Your task to perform on an android device: Go to Wikipedia Image 0: 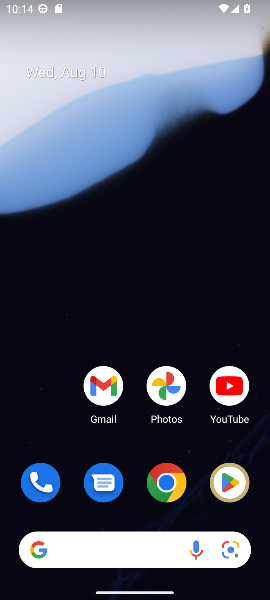
Step 0: click (109, 555)
Your task to perform on an android device: Go to Wikipedia Image 1: 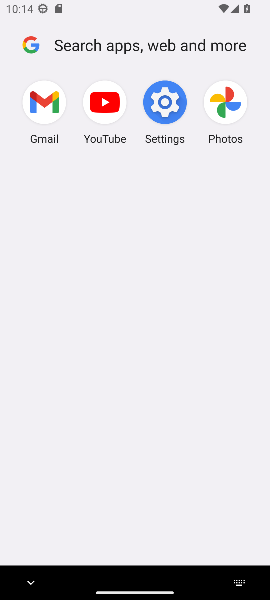
Step 1: type "Go to Wikipedia"
Your task to perform on an android device: Go to Wikipedia Image 2: 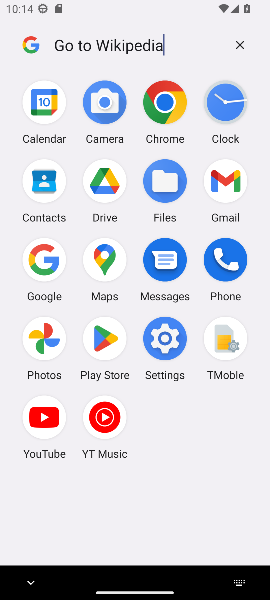
Step 2: type ""
Your task to perform on an android device: Go to Wikipedia Image 3: 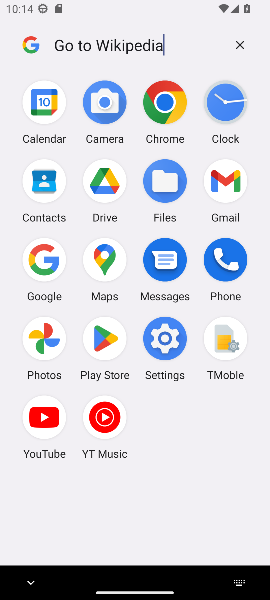
Step 3: press enter
Your task to perform on an android device: Go to Wikipedia Image 4: 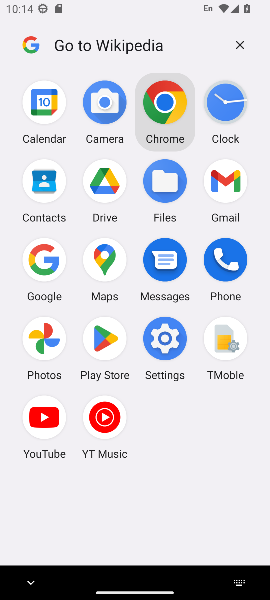
Step 4: press enter
Your task to perform on an android device: Go to Wikipedia Image 5: 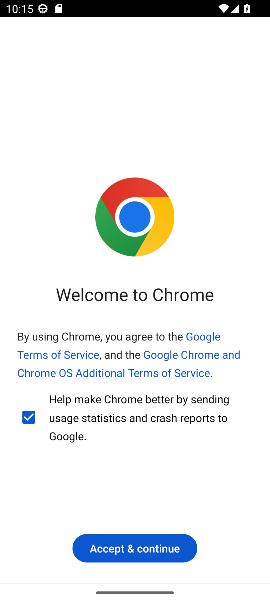
Step 5: click (151, 551)
Your task to perform on an android device: Go to Wikipedia Image 6: 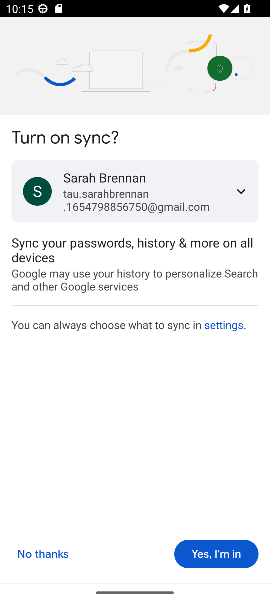
Step 6: click (213, 557)
Your task to perform on an android device: Go to Wikipedia Image 7: 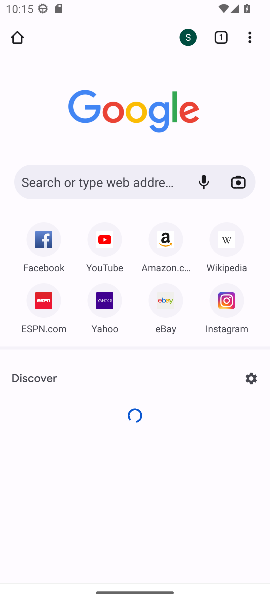
Step 7: task complete